Your task to perform on an android device: Open accessibility settings Image 0: 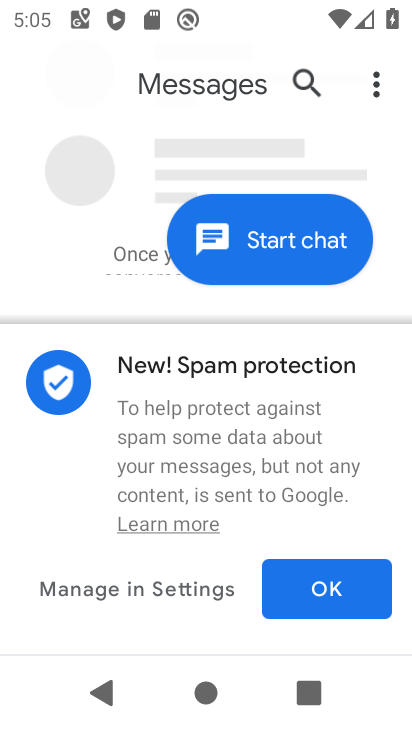
Step 0: press home button
Your task to perform on an android device: Open accessibility settings Image 1: 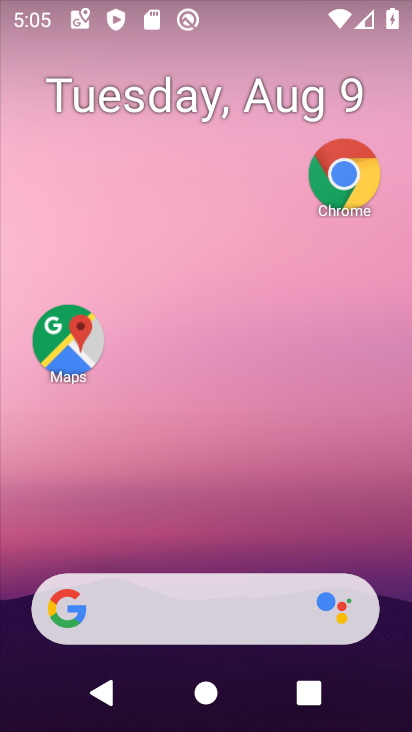
Step 1: drag from (220, 509) to (231, 83)
Your task to perform on an android device: Open accessibility settings Image 2: 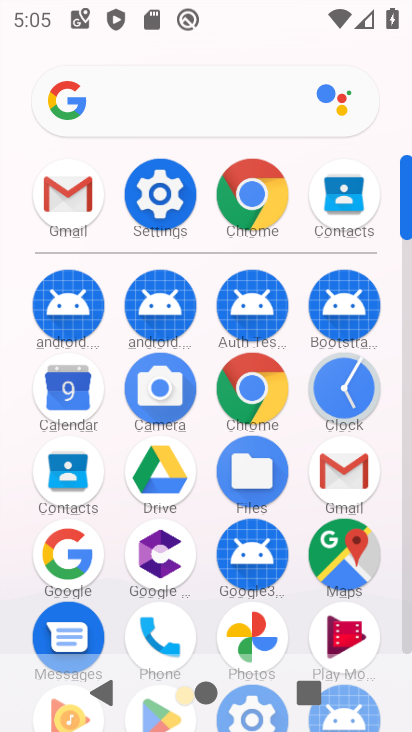
Step 2: click (163, 175)
Your task to perform on an android device: Open accessibility settings Image 3: 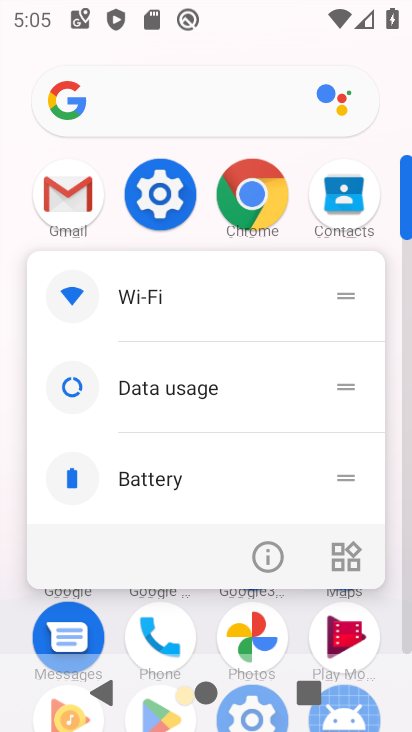
Step 3: click (265, 548)
Your task to perform on an android device: Open accessibility settings Image 4: 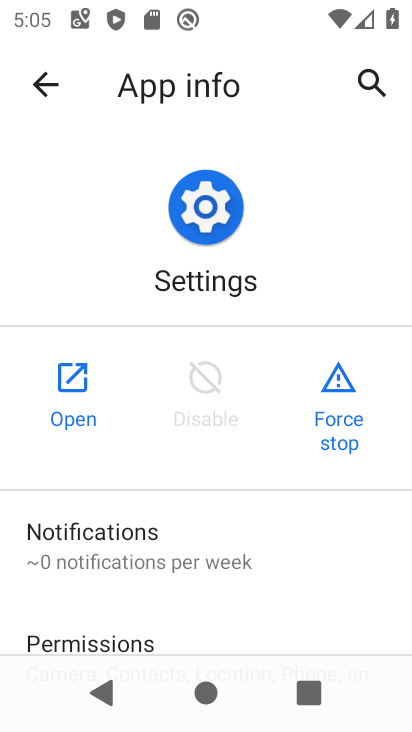
Step 4: click (91, 371)
Your task to perform on an android device: Open accessibility settings Image 5: 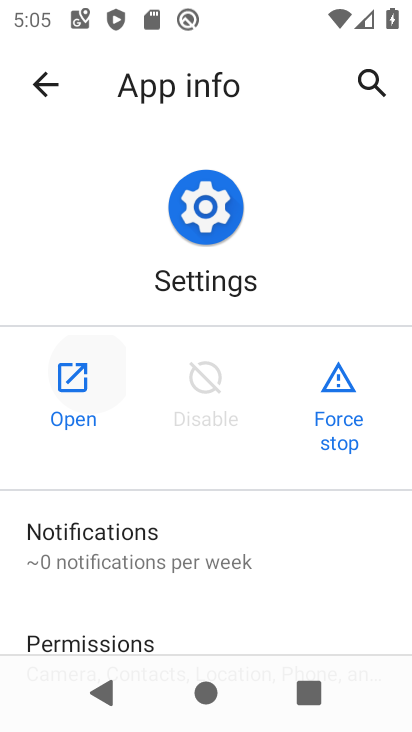
Step 5: click (90, 370)
Your task to perform on an android device: Open accessibility settings Image 6: 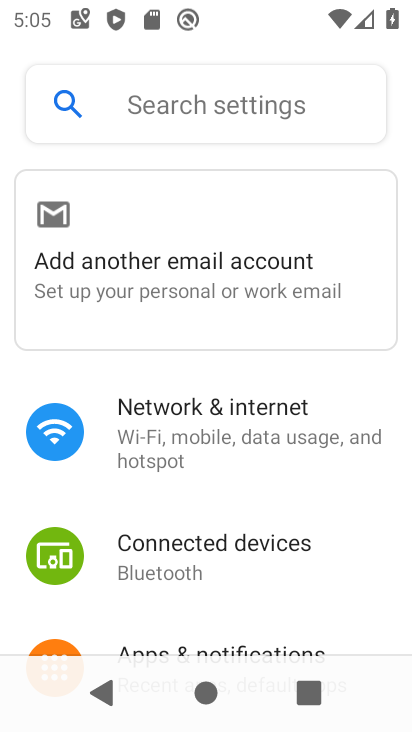
Step 6: drag from (188, 496) to (236, 84)
Your task to perform on an android device: Open accessibility settings Image 7: 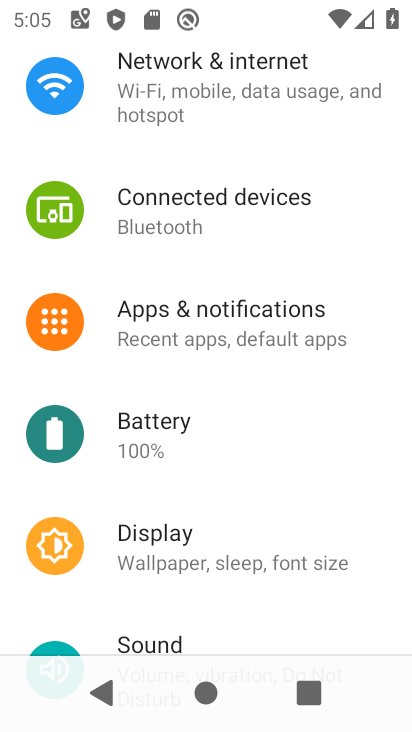
Step 7: drag from (287, 643) to (306, 146)
Your task to perform on an android device: Open accessibility settings Image 8: 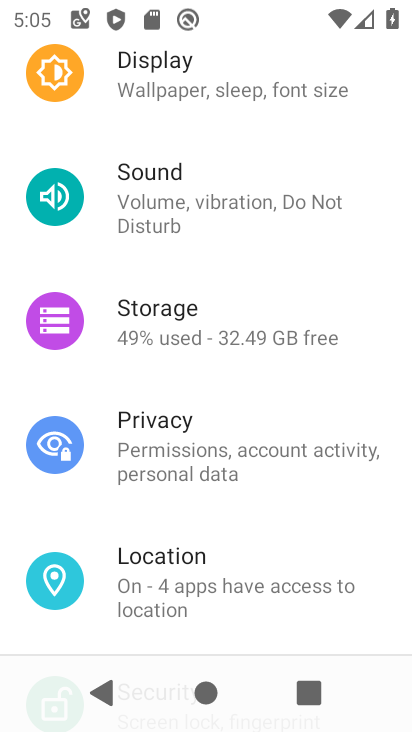
Step 8: drag from (301, 484) to (314, 2)
Your task to perform on an android device: Open accessibility settings Image 9: 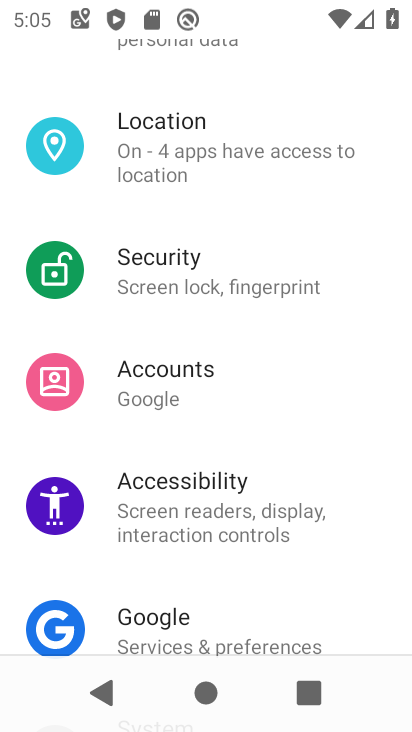
Step 9: click (241, 475)
Your task to perform on an android device: Open accessibility settings Image 10: 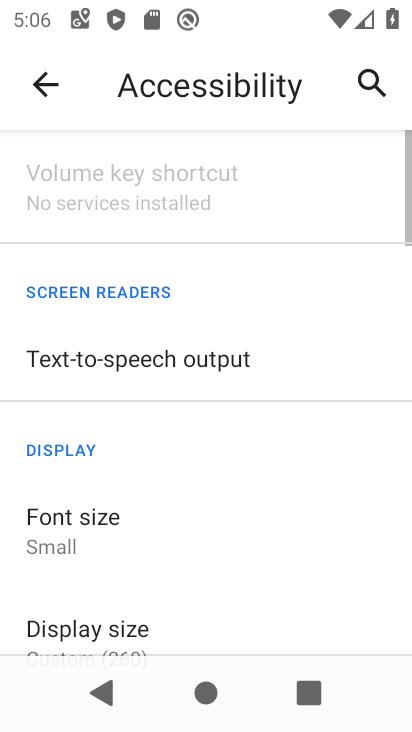
Step 10: task complete